Your task to perform on an android device: open a new tab in the chrome app Image 0: 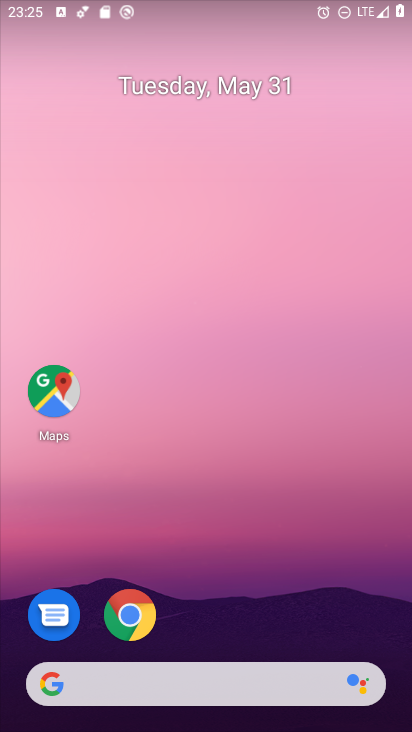
Step 0: click (132, 618)
Your task to perform on an android device: open a new tab in the chrome app Image 1: 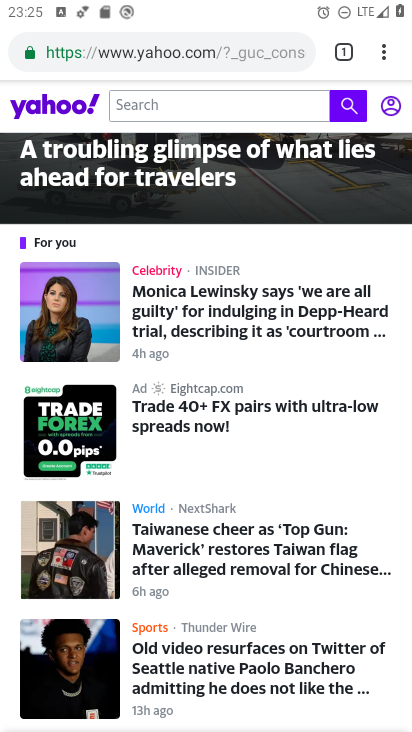
Step 1: click (383, 55)
Your task to perform on an android device: open a new tab in the chrome app Image 2: 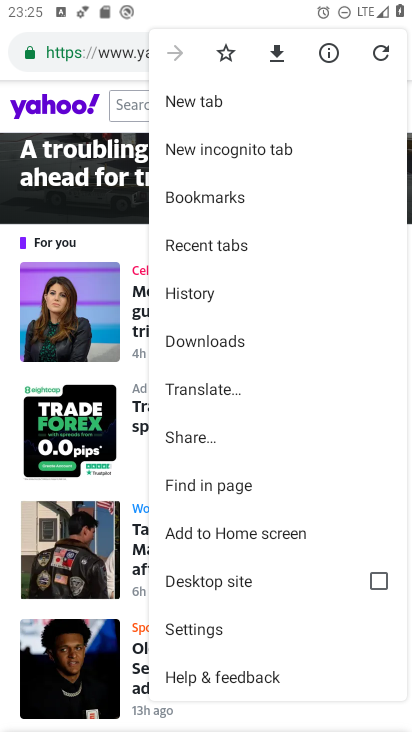
Step 2: click (199, 98)
Your task to perform on an android device: open a new tab in the chrome app Image 3: 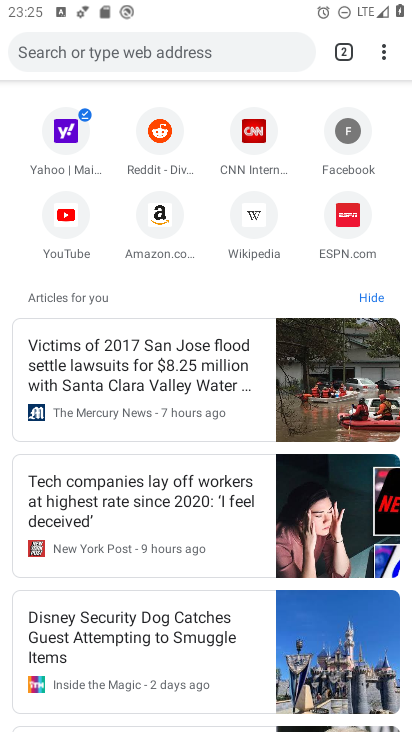
Step 3: task complete